Your task to perform on an android device: What's the weather? Image 0: 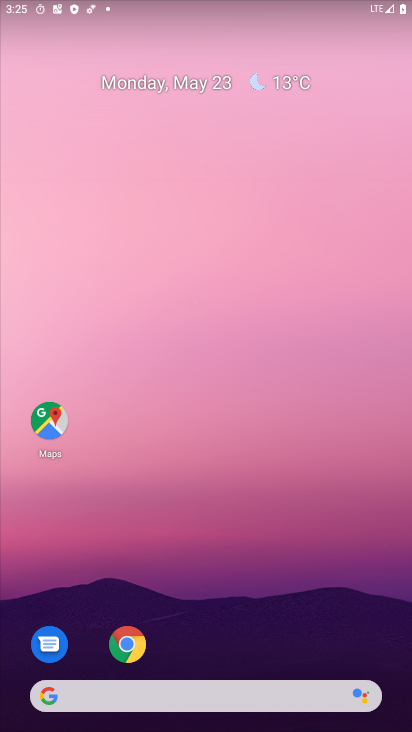
Step 0: drag from (201, 669) to (175, 56)
Your task to perform on an android device: What's the weather? Image 1: 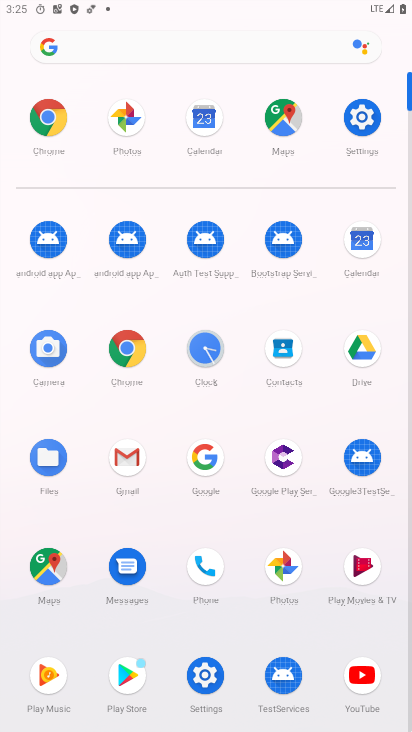
Step 1: click (208, 448)
Your task to perform on an android device: What's the weather? Image 2: 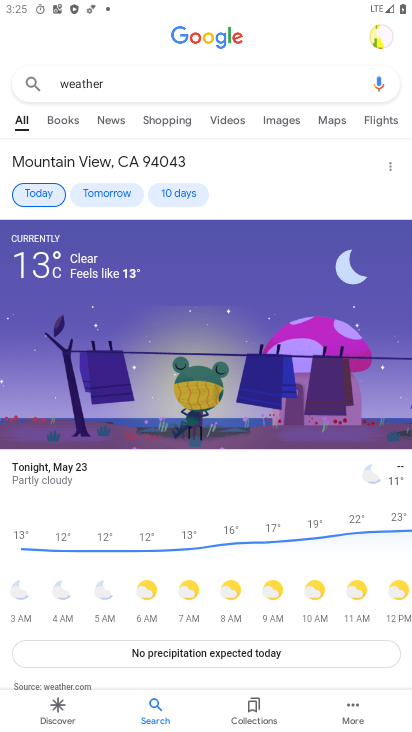
Step 2: task complete